Your task to perform on an android device: toggle show notifications on the lock screen Image 0: 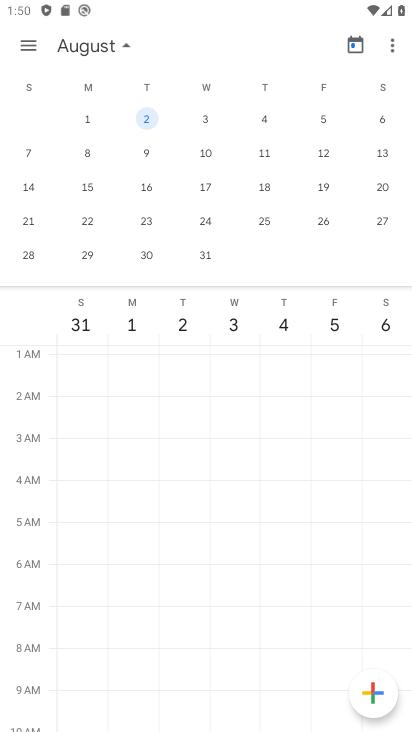
Step 0: press home button
Your task to perform on an android device: toggle show notifications on the lock screen Image 1: 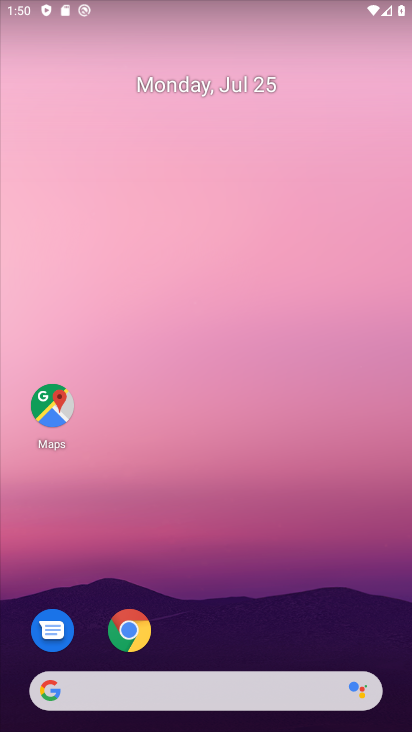
Step 1: drag from (222, 483) to (209, 95)
Your task to perform on an android device: toggle show notifications on the lock screen Image 2: 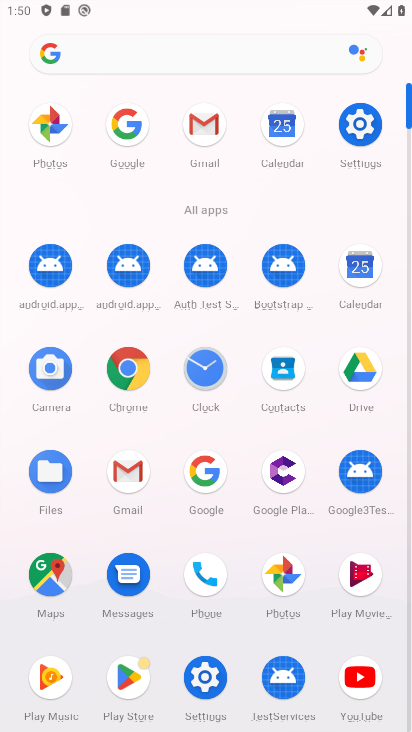
Step 2: click (364, 134)
Your task to perform on an android device: toggle show notifications on the lock screen Image 3: 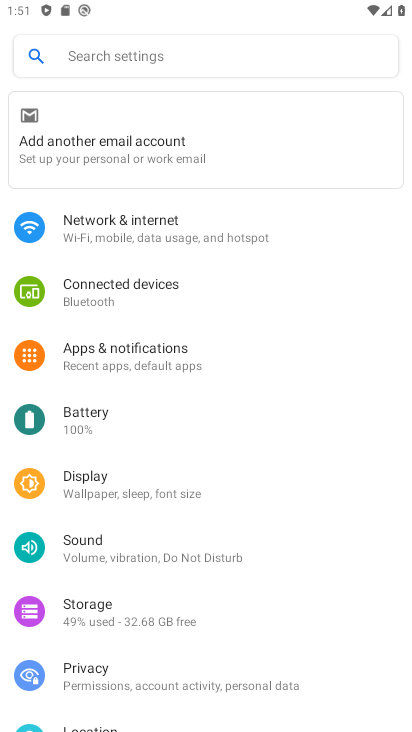
Step 3: click (178, 372)
Your task to perform on an android device: toggle show notifications on the lock screen Image 4: 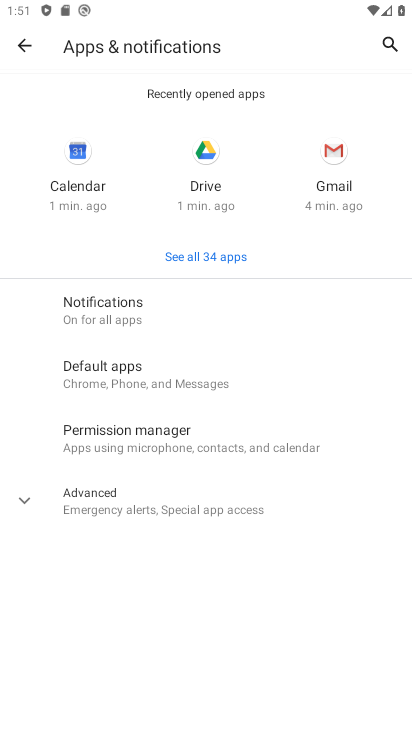
Step 4: click (166, 316)
Your task to perform on an android device: toggle show notifications on the lock screen Image 5: 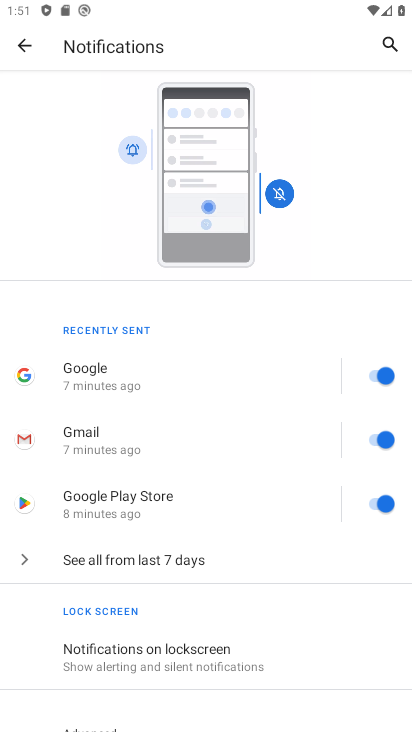
Step 5: click (326, 676)
Your task to perform on an android device: toggle show notifications on the lock screen Image 6: 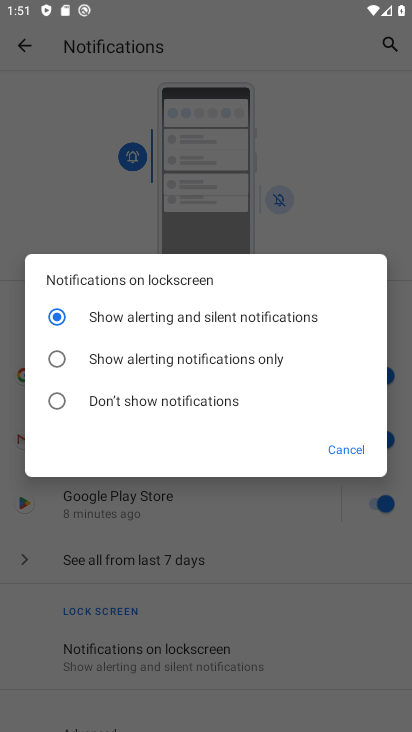
Step 6: click (178, 351)
Your task to perform on an android device: toggle show notifications on the lock screen Image 7: 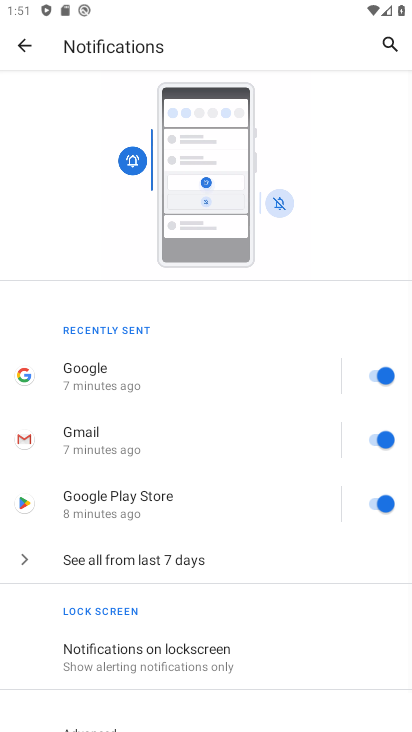
Step 7: task complete